Your task to perform on an android device: turn pop-ups on in chrome Image 0: 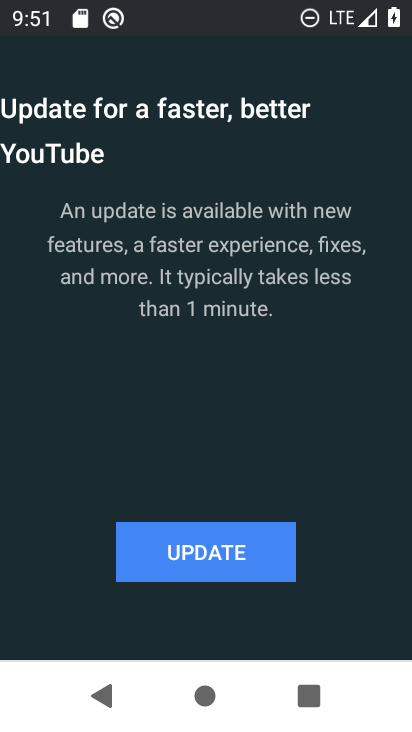
Step 0: press home button
Your task to perform on an android device: turn pop-ups on in chrome Image 1: 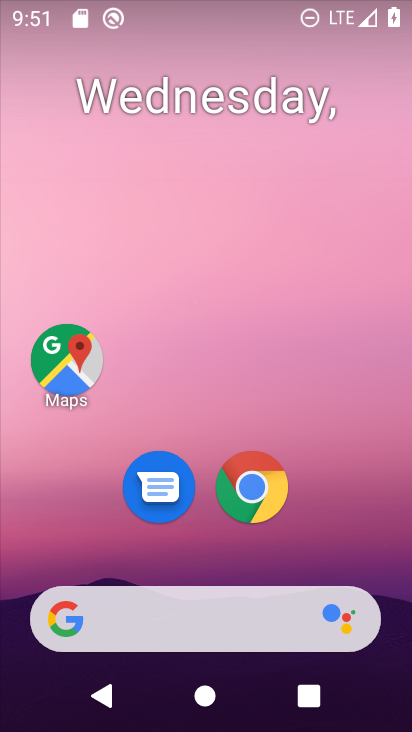
Step 1: click (250, 480)
Your task to perform on an android device: turn pop-ups on in chrome Image 2: 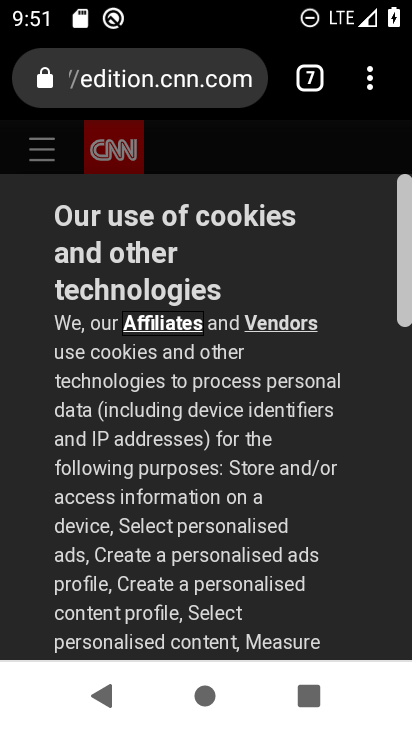
Step 2: click (369, 75)
Your task to perform on an android device: turn pop-ups on in chrome Image 3: 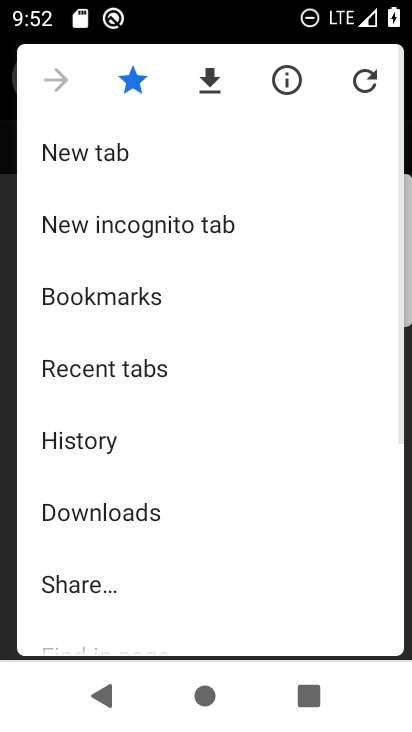
Step 3: drag from (224, 575) to (103, 165)
Your task to perform on an android device: turn pop-ups on in chrome Image 4: 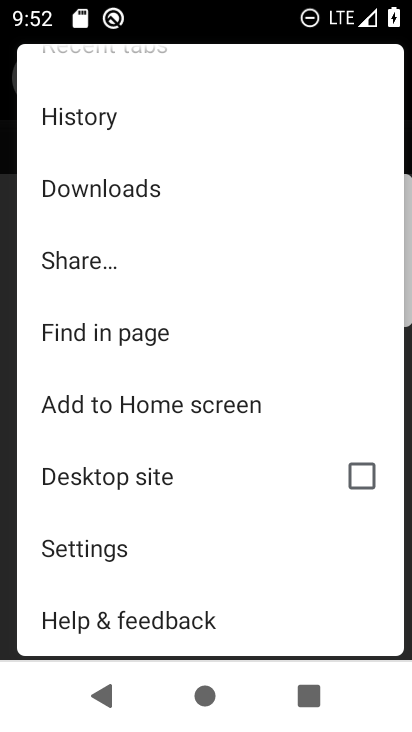
Step 4: click (91, 549)
Your task to perform on an android device: turn pop-ups on in chrome Image 5: 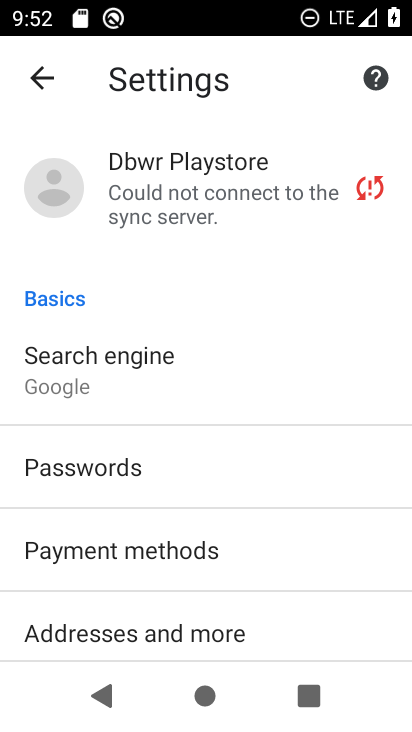
Step 5: drag from (198, 476) to (174, 143)
Your task to perform on an android device: turn pop-ups on in chrome Image 6: 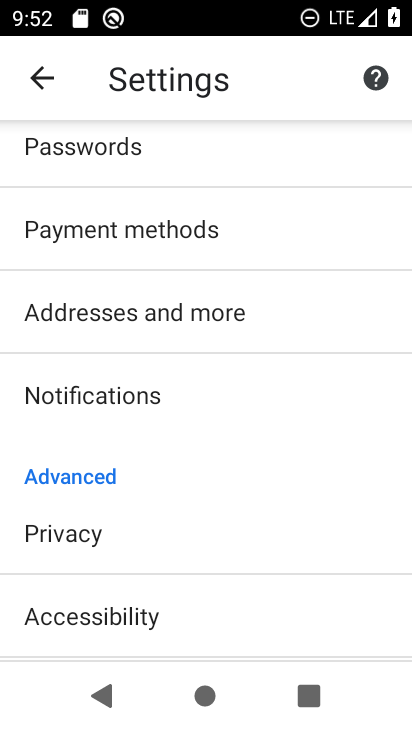
Step 6: click (193, 189)
Your task to perform on an android device: turn pop-ups on in chrome Image 7: 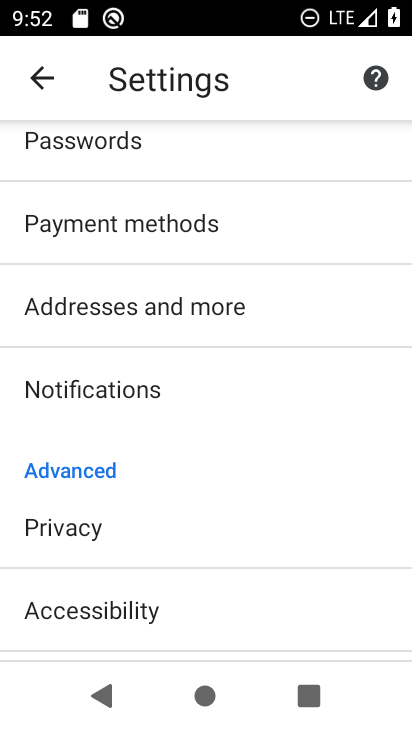
Step 7: drag from (208, 552) to (165, 130)
Your task to perform on an android device: turn pop-ups on in chrome Image 8: 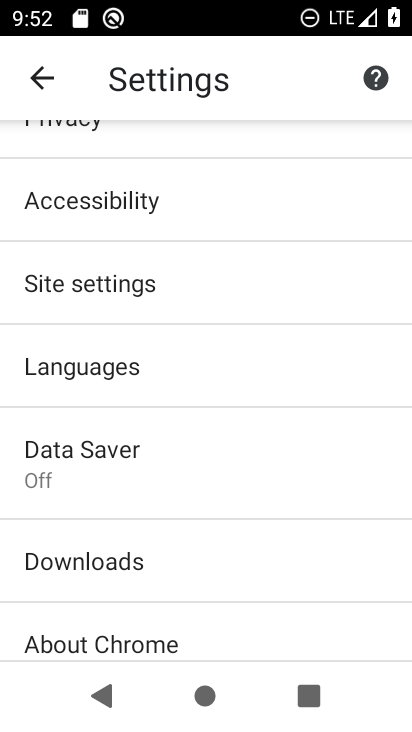
Step 8: click (92, 284)
Your task to perform on an android device: turn pop-ups on in chrome Image 9: 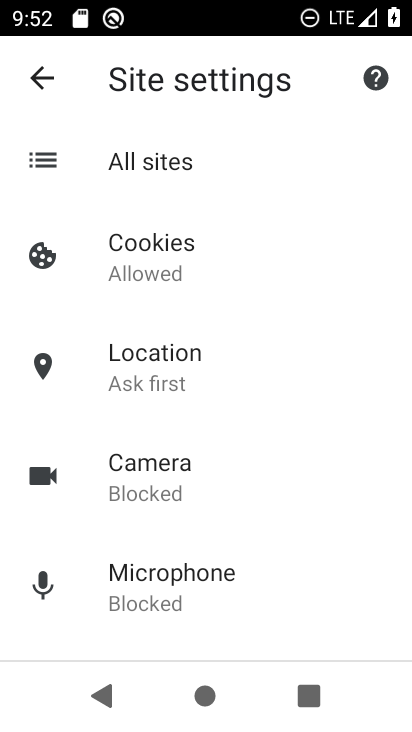
Step 9: drag from (239, 508) to (189, 173)
Your task to perform on an android device: turn pop-ups on in chrome Image 10: 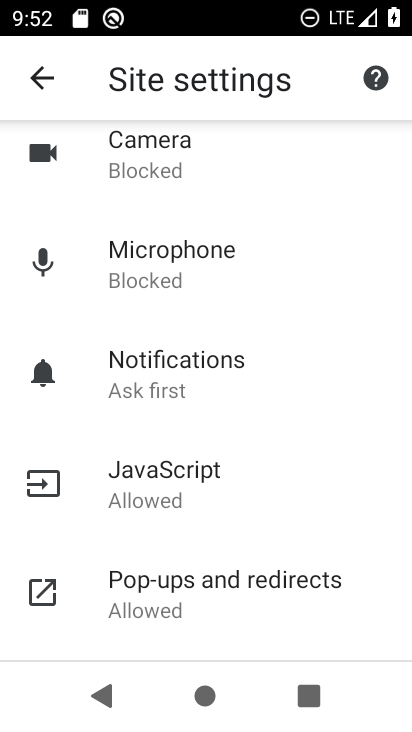
Step 10: click (157, 581)
Your task to perform on an android device: turn pop-ups on in chrome Image 11: 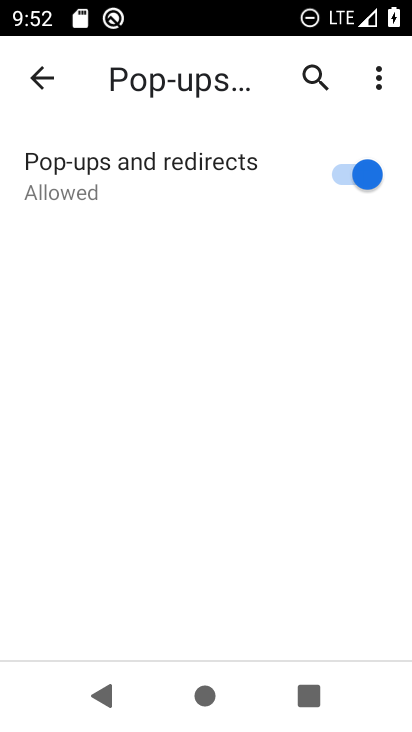
Step 11: task complete